Your task to perform on an android device: Open Google Image 0: 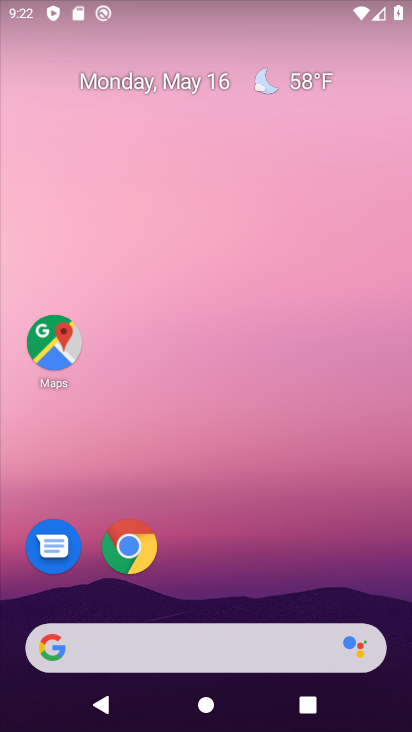
Step 0: drag from (268, 533) to (208, 96)
Your task to perform on an android device: Open Google Image 1: 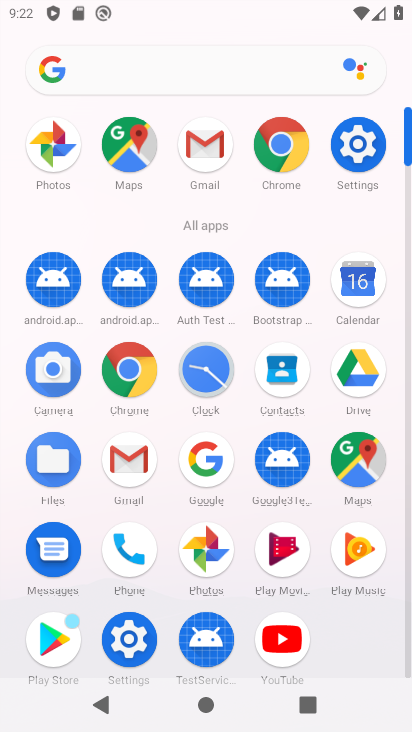
Step 1: click (202, 460)
Your task to perform on an android device: Open Google Image 2: 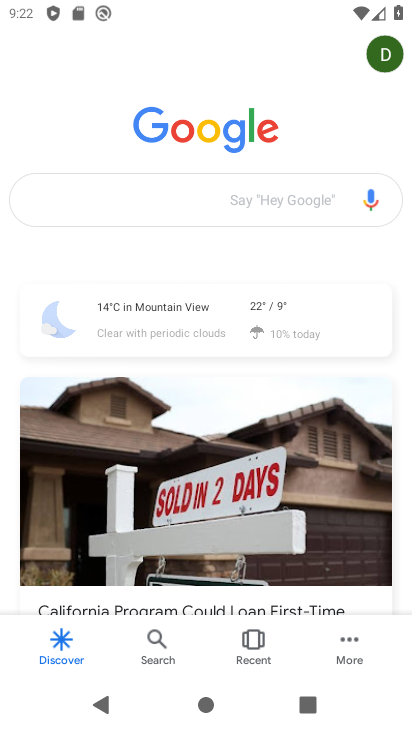
Step 2: task complete